Your task to perform on an android device: toggle wifi Image 0: 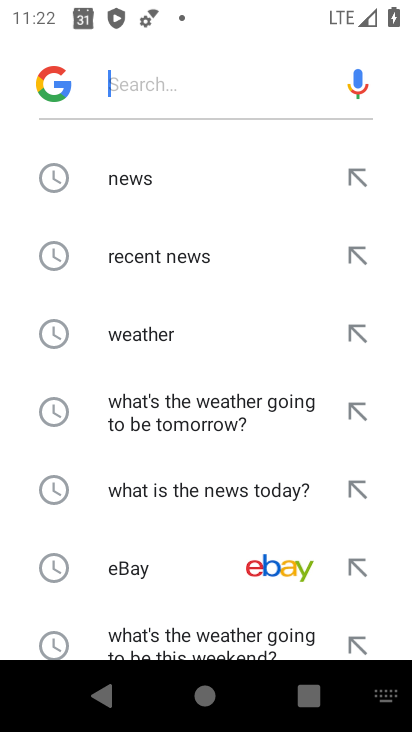
Step 0: press back button
Your task to perform on an android device: toggle wifi Image 1: 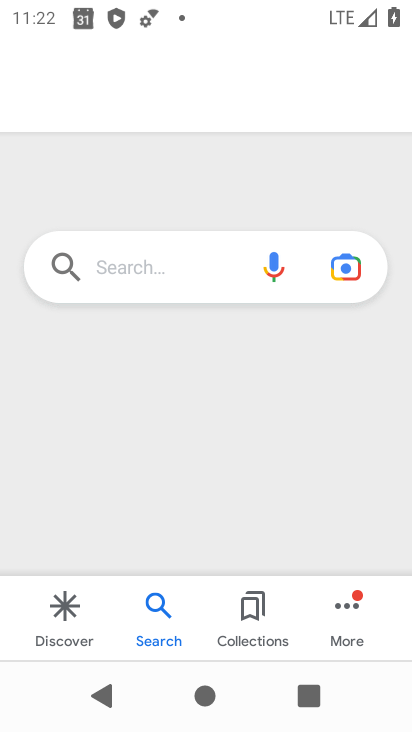
Step 1: press back button
Your task to perform on an android device: toggle wifi Image 2: 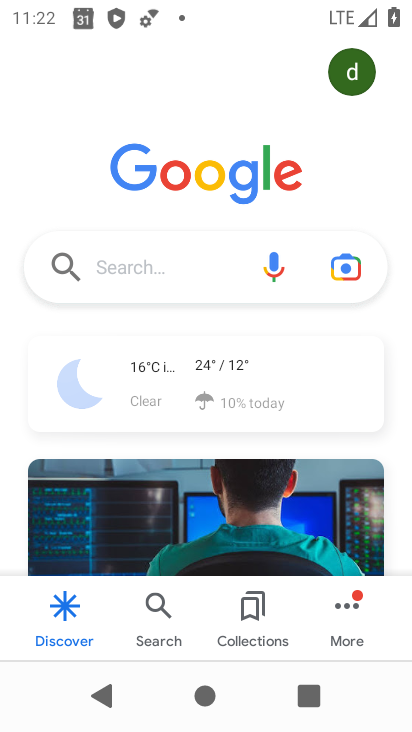
Step 2: press back button
Your task to perform on an android device: toggle wifi Image 3: 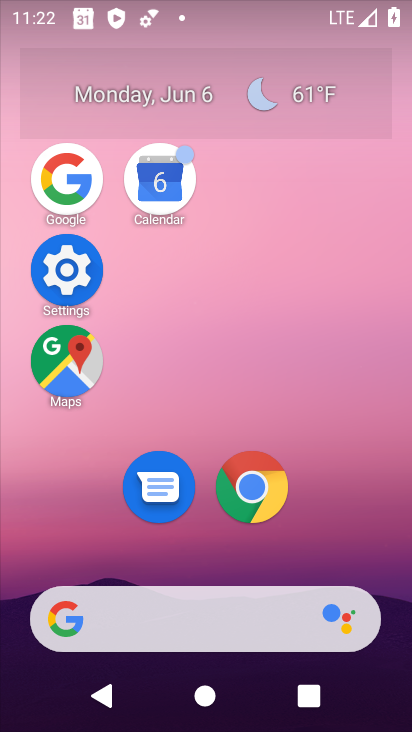
Step 3: click (101, 264)
Your task to perform on an android device: toggle wifi Image 4: 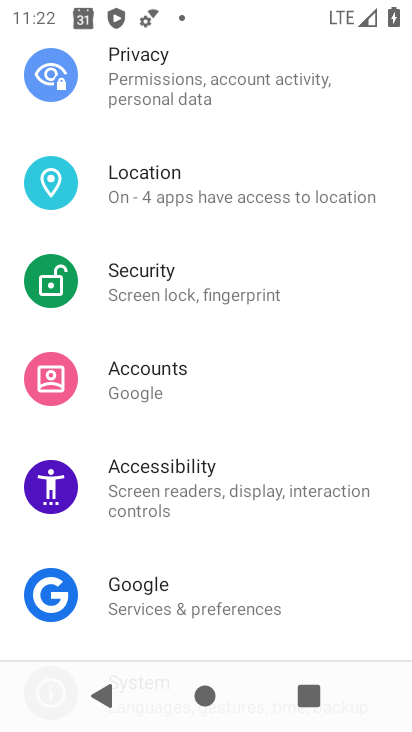
Step 4: drag from (300, 162) to (276, 506)
Your task to perform on an android device: toggle wifi Image 5: 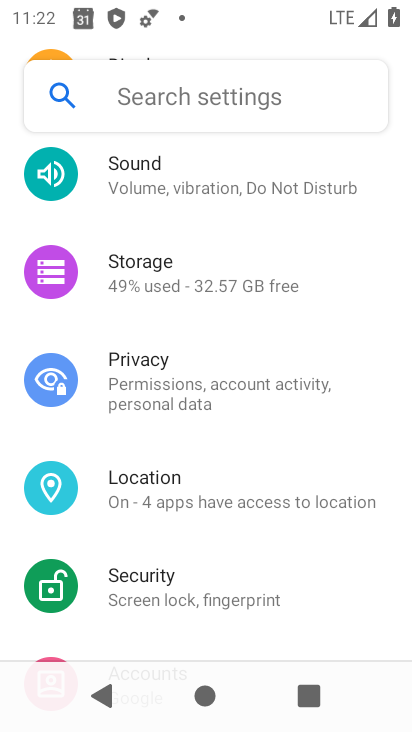
Step 5: drag from (285, 188) to (284, 417)
Your task to perform on an android device: toggle wifi Image 6: 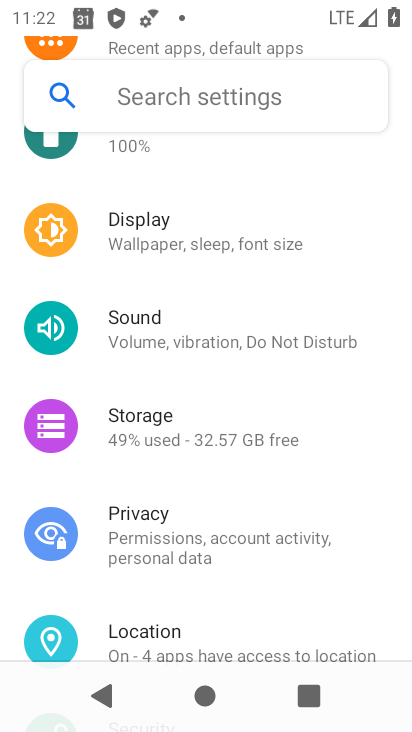
Step 6: drag from (259, 168) to (228, 472)
Your task to perform on an android device: toggle wifi Image 7: 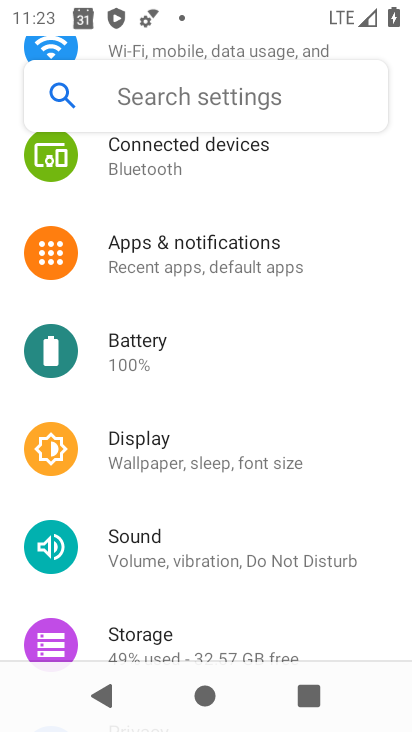
Step 7: drag from (211, 186) to (163, 498)
Your task to perform on an android device: toggle wifi Image 8: 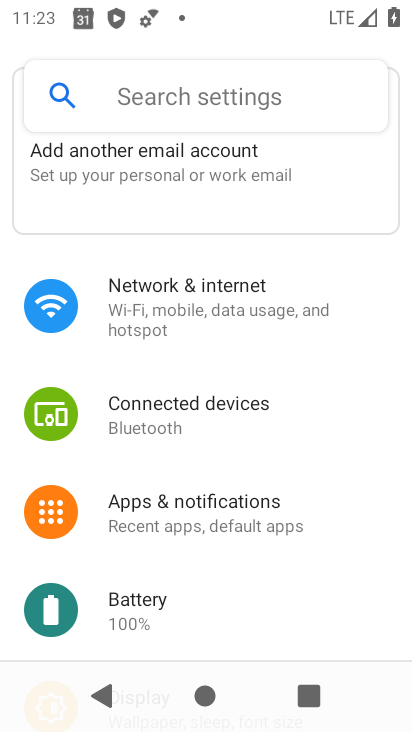
Step 8: click (249, 310)
Your task to perform on an android device: toggle wifi Image 9: 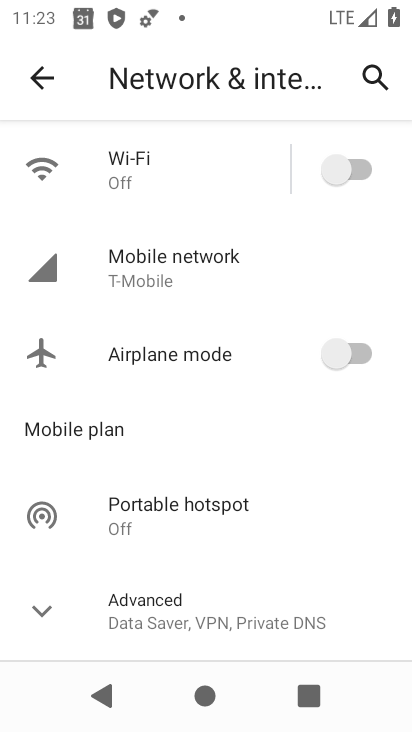
Step 9: click (341, 176)
Your task to perform on an android device: toggle wifi Image 10: 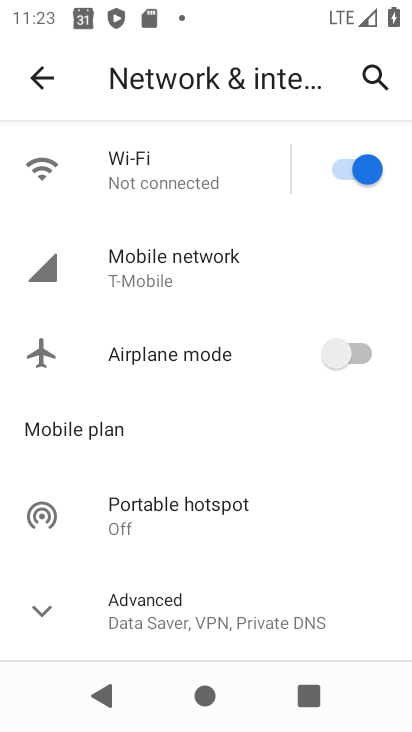
Step 10: task complete